Your task to perform on an android device: all mails in gmail Image 0: 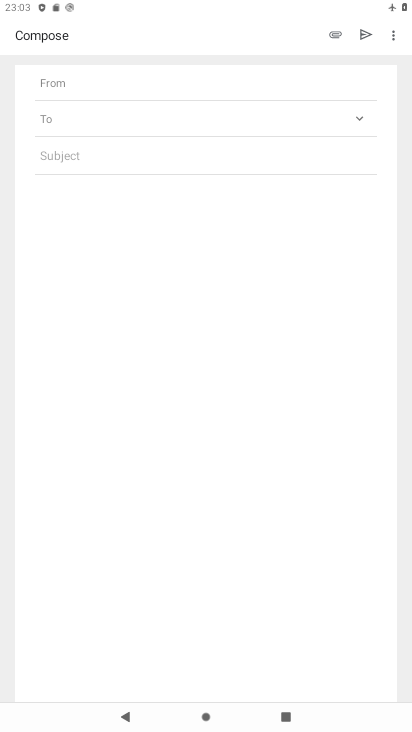
Step 0: drag from (140, 624) to (395, 556)
Your task to perform on an android device: all mails in gmail Image 1: 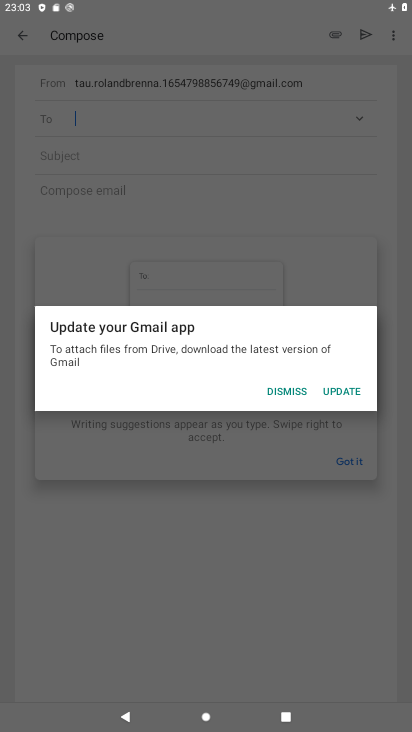
Step 1: press home button
Your task to perform on an android device: all mails in gmail Image 2: 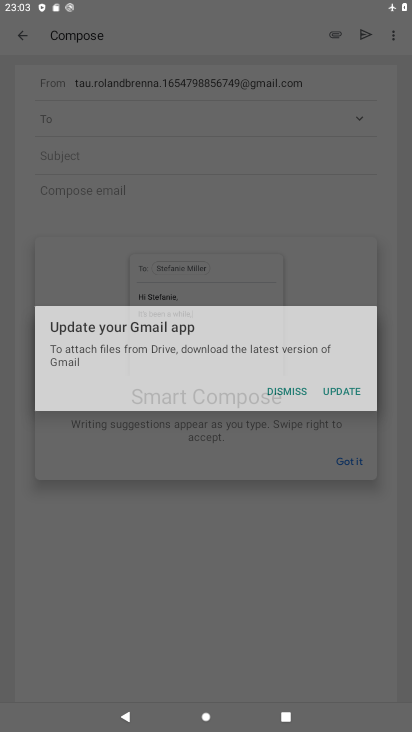
Step 2: drag from (395, 556) to (406, 355)
Your task to perform on an android device: all mails in gmail Image 3: 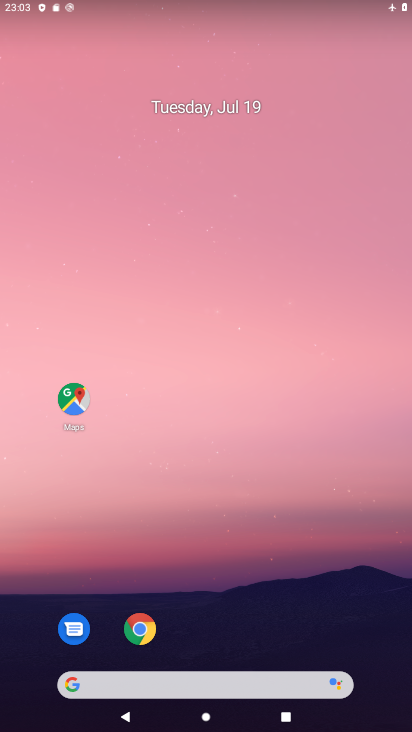
Step 3: drag from (233, 624) to (262, 77)
Your task to perform on an android device: all mails in gmail Image 4: 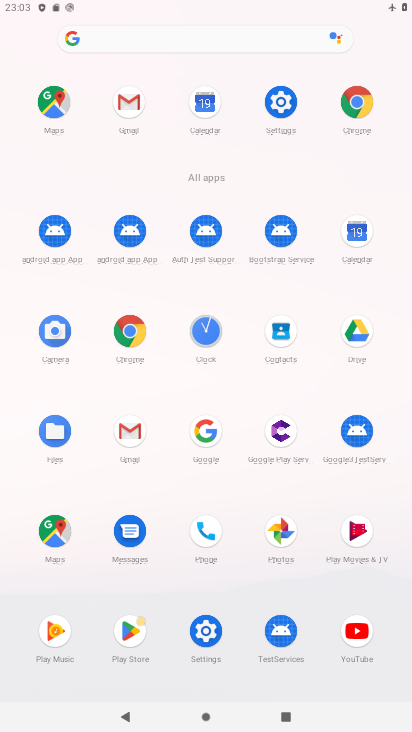
Step 4: click (117, 424)
Your task to perform on an android device: all mails in gmail Image 5: 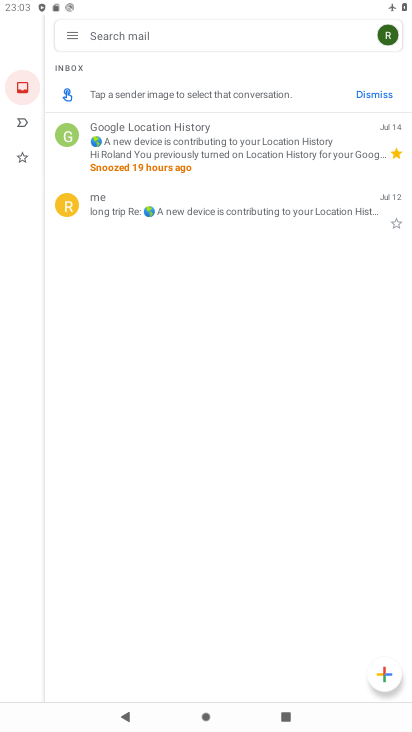
Step 5: click (65, 26)
Your task to perform on an android device: all mails in gmail Image 6: 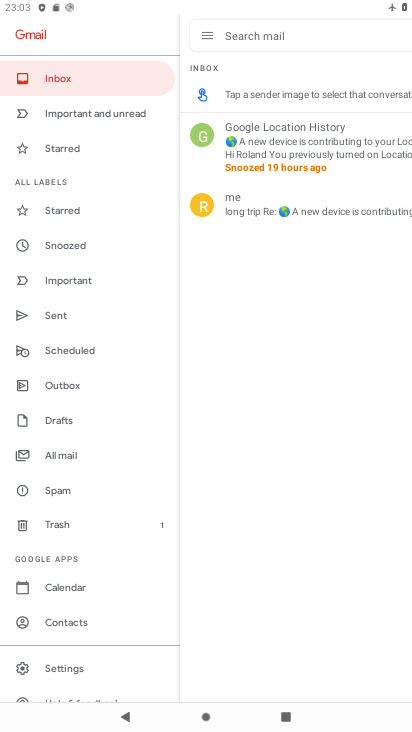
Step 6: click (56, 449)
Your task to perform on an android device: all mails in gmail Image 7: 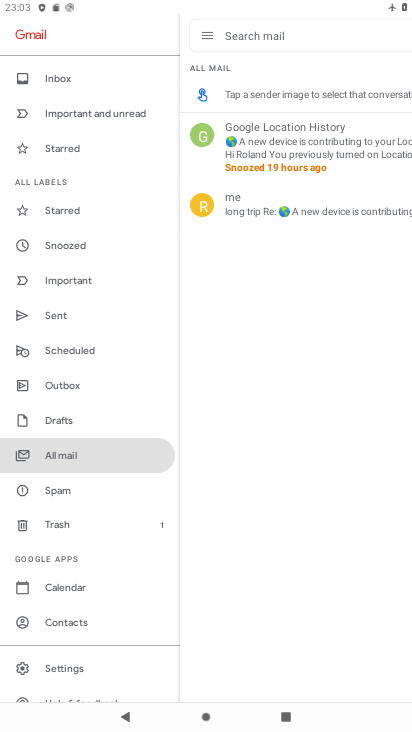
Step 7: task complete